Your task to perform on an android device: Search for Mexican restaurants on Maps Image 0: 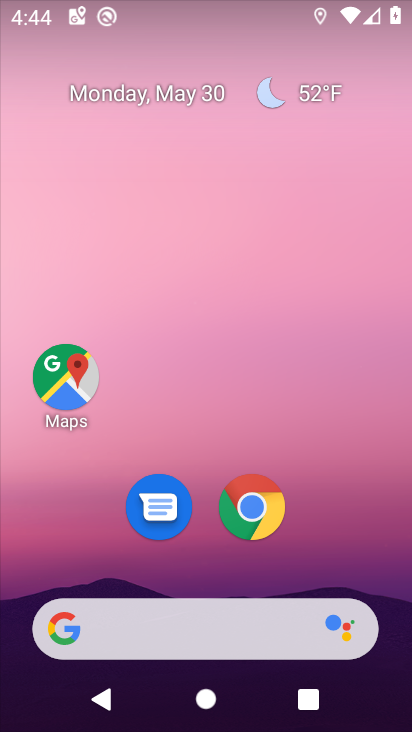
Step 0: click (47, 352)
Your task to perform on an android device: Search for Mexican restaurants on Maps Image 1: 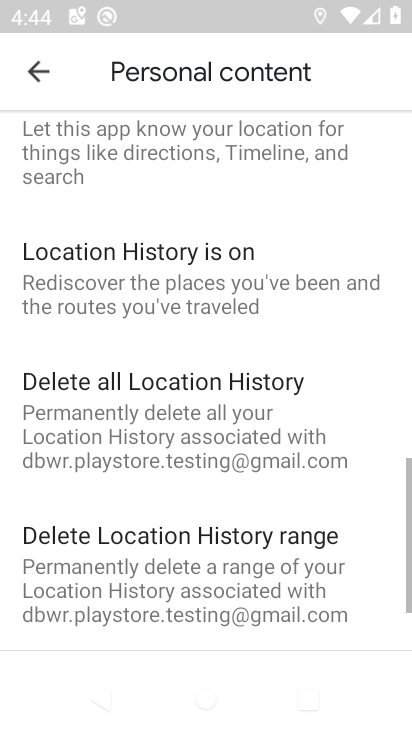
Step 1: click (38, 78)
Your task to perform on an android device: Search for Mexican restaurants on Maps Image 2: 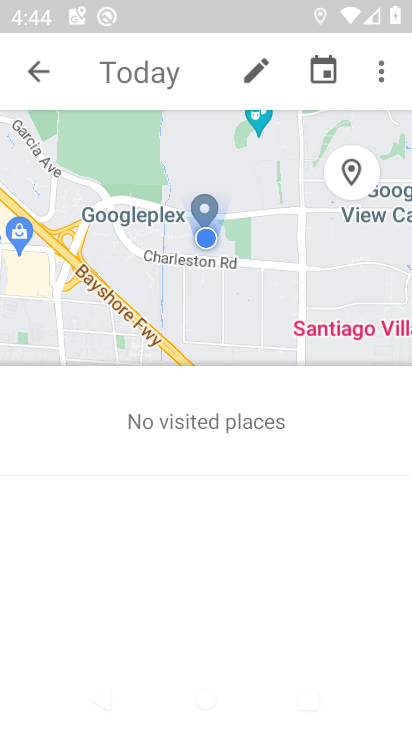
Step 2: click (32, 66)
Your task to perform on an android device: Search for Mexican restaurants on Maps Image 3: 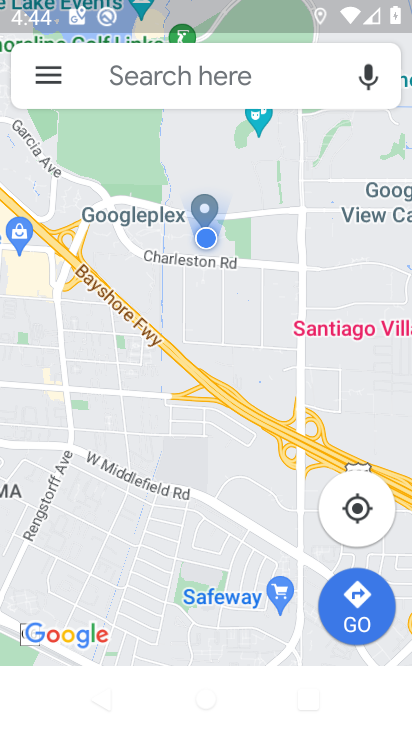
Step 3: click (188, 66)
Your task to perform on an android device: Search for Mexican restaurants on Maps Image 4: 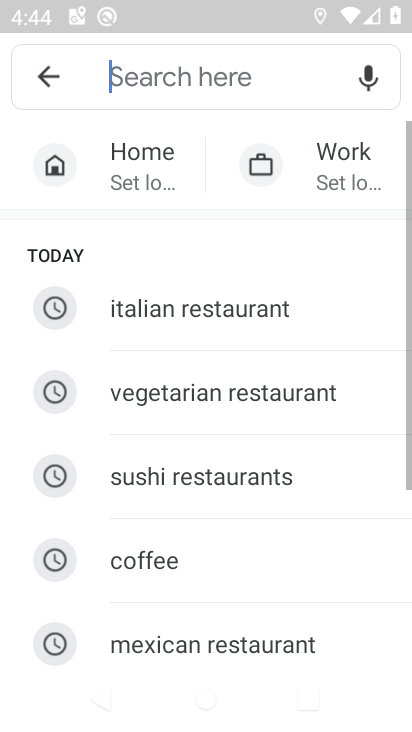
Step 4: click (188, 66)
Your task to perform on an android device: Search for Mexican restaurants on Maps Image 5: 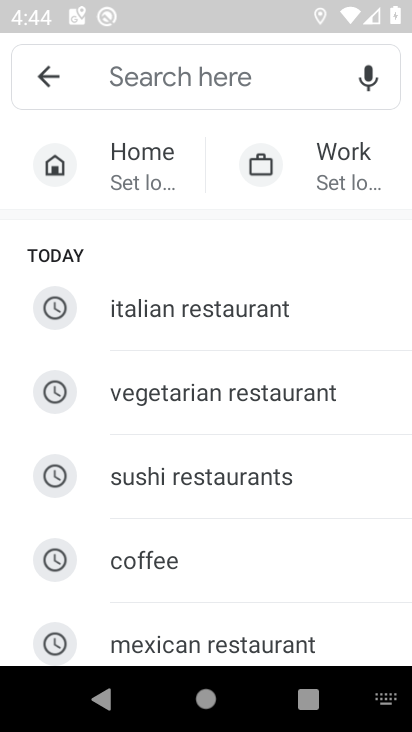
Step 5: type "Mexican restaurants"
Your task to perform on an android device: Search for Mexican restaurants on Maps Image 6: 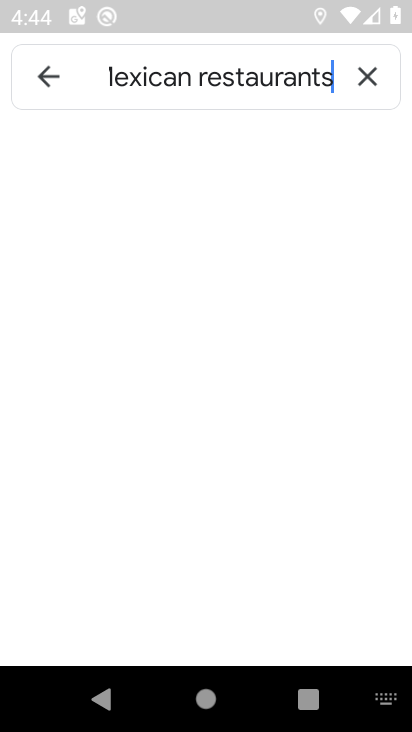
Step 6: type ""
Your task to perform on an android device: Search for Mexican restaurants on Maps Image 7: 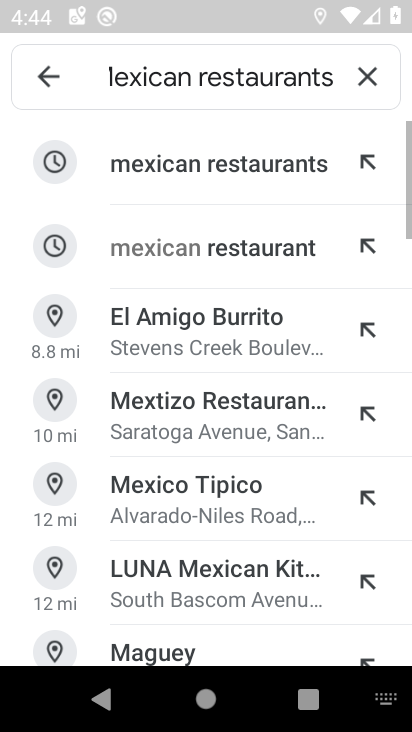
Step 7: click (149, 163)
Your task to perform on an android device: Search for Mexican restaurants on Maps Image 8: 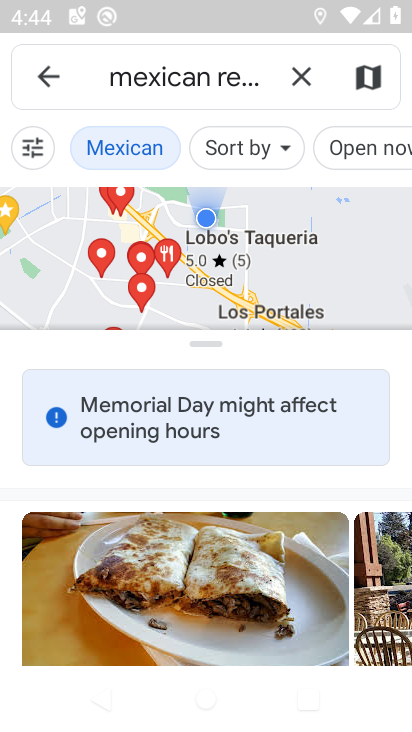
Step 8: task complete